Your task to perform on an android device: Search for Italian restaurants on Maps Image 0: 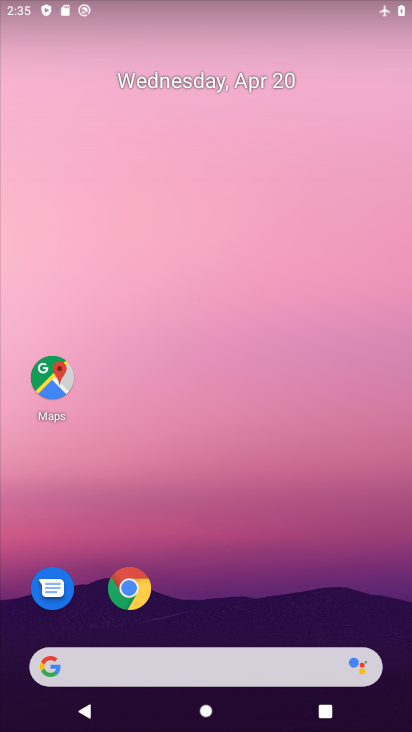
Step 0: click (52, 380)
Your task to perform on an android device: Search for Italian restaurants on Maps Image 1: 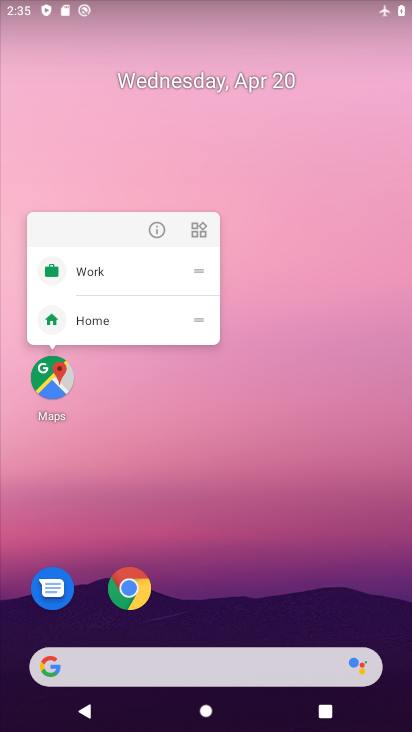
Step 1: click (54, 381)
Your task to perform on an android device: Search for Italian restaurants on Maps Image 2: 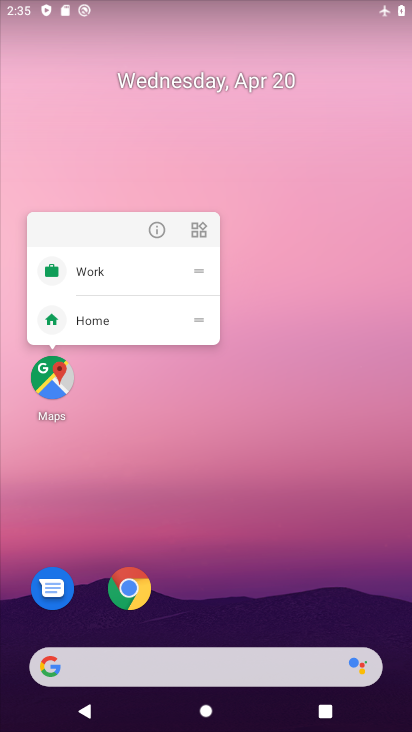
Step 2: click (53, 380)
Your task to perform on an android device: Search for Italian restaurants on Maps Image 3: 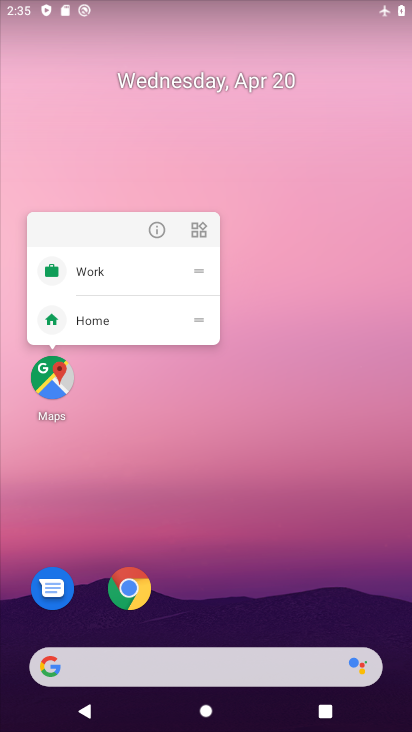
Step 3: click (50, 391)
Your task to perform on an android device: Search for Italian restaurants on Maps Image 4: 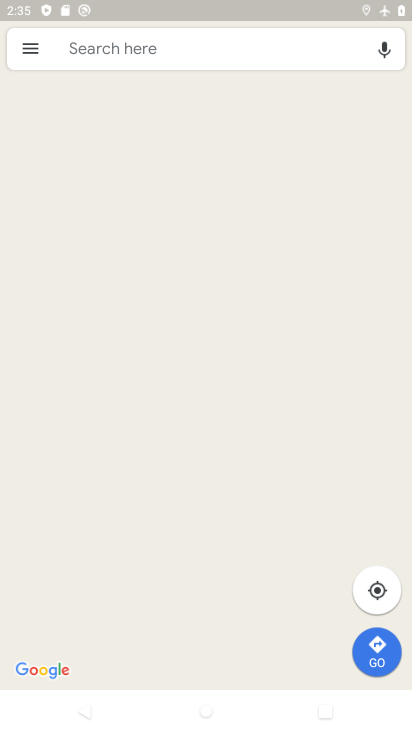
Step 4: click (184, 59)
Your task to perform on an android device: Search for Italian restaurants on Maps Image 5: 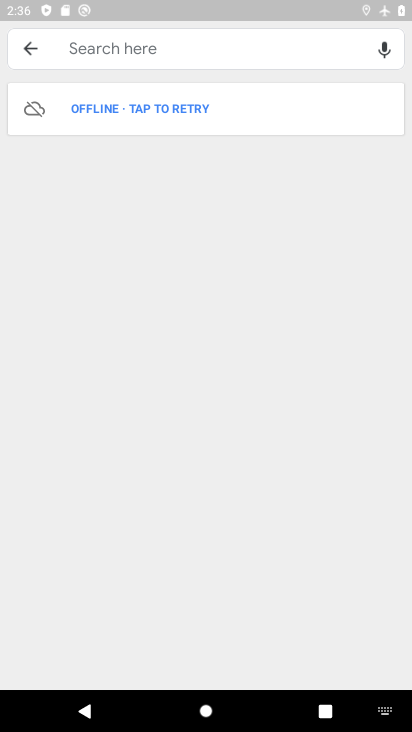
Step 5: type "Italian restaurants"
Your task to perform on an android device: Search for Italian restaurants on Maps Image 6: 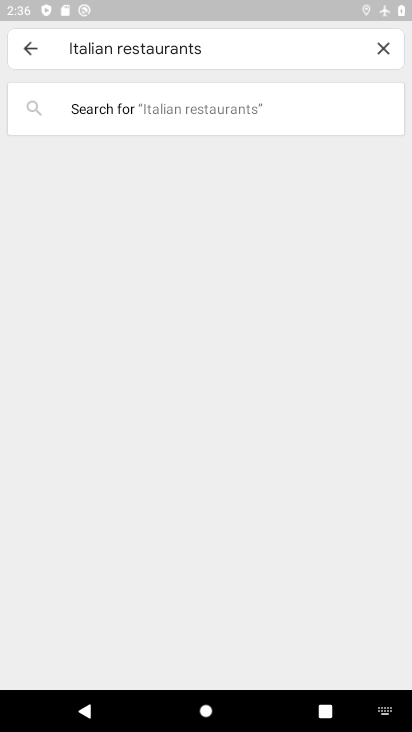
Step 6: task complete